Your task to perform on an android device: Set an alarm for 8am Image 0: 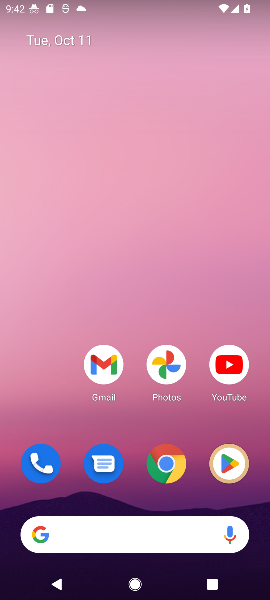
Step 0: drag from (155, 497) to (133, 99)
Your task to perform on an android device: Set an alarm for 8am Image 1: 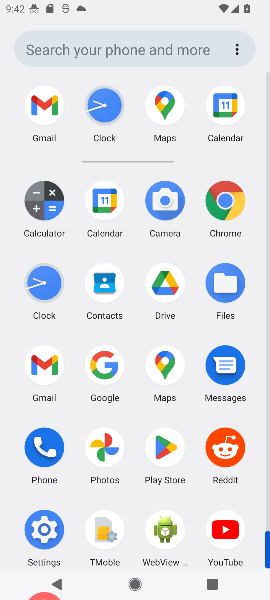
Step 1: click (104, 357)
Your task to perform on an android device: Set an alarm for 8am Image 2: 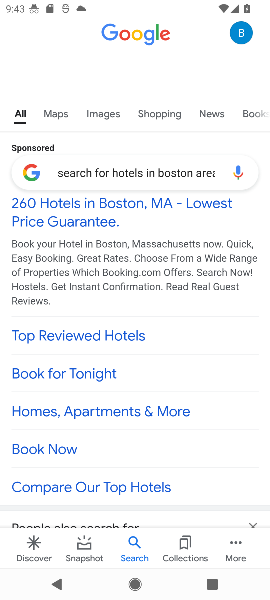
Step 2: click (144, 167)
Your task to perform on an android device: Set an alarm for 8am Image 3: 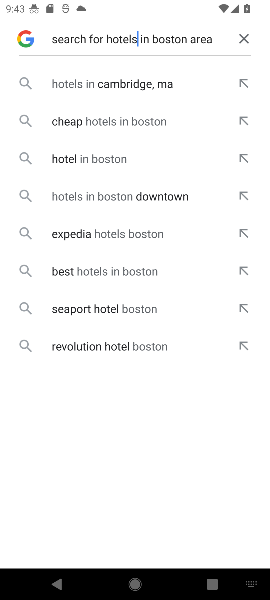
Step 3: click (238, 37)
Your task to perform on an android device: Set an alarm for 8am Image 4: 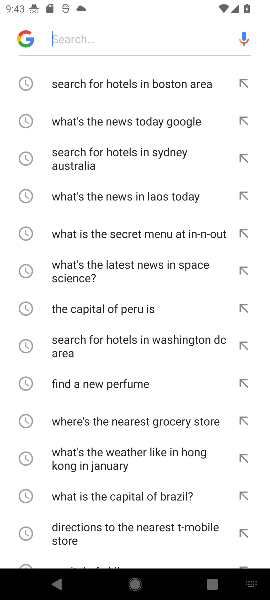
Step 4: press home button
Your task to perform on an android device: Set an alarm for 8am Image 5: 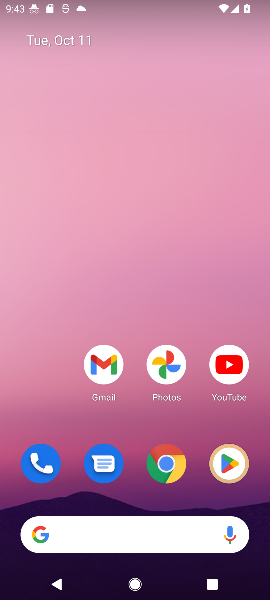
Step 5: drag from (96, 501) to (123, 97)
Your task to perform on an android device: Set an alarm for 8am Image 6: 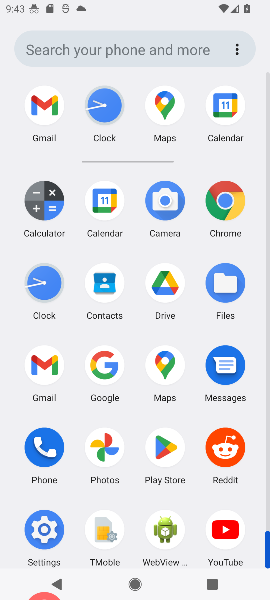
Step 6: drag from (120, 514) to (160, 200)
Your task to perform on an android device: Set an alarm for 8am Image 7: 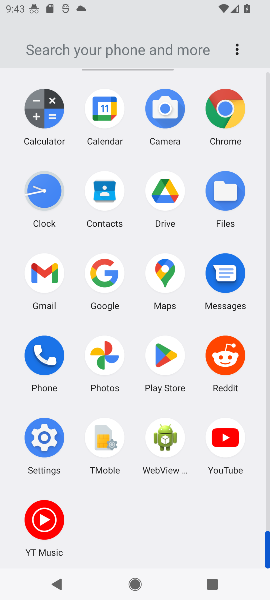
Step 7: click (46, 184)
Your task to perform on an android device: Set an alarm for 8am Image 8: 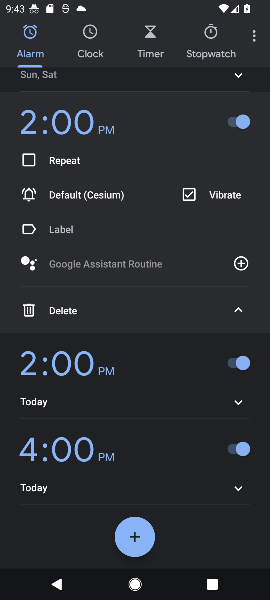
Step 8: click (231, 301)
Your task to perform on an android device: Set an alarm for 8am Image 9: 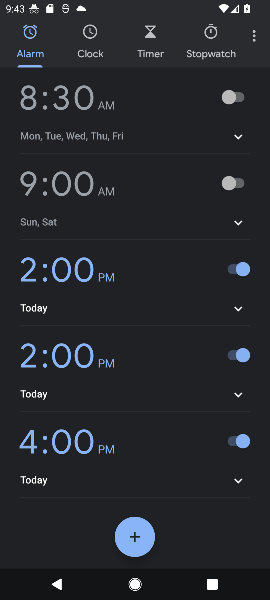
Step 9: click (133, 533)
Your task to perform on an android device: Set an alarm for 8am Image 10: 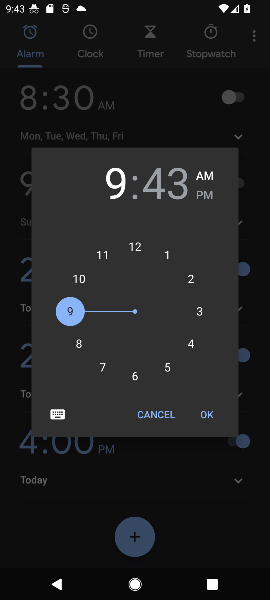
Step 10: click (85, 337)
Your task to perform on an android device: Set an alarm for 8am Image 11: 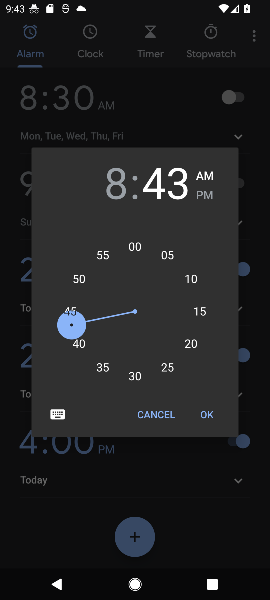
Step 11: click (144, 244)
Your task to perform on an android device: Set an alarm for 8am Image 12: 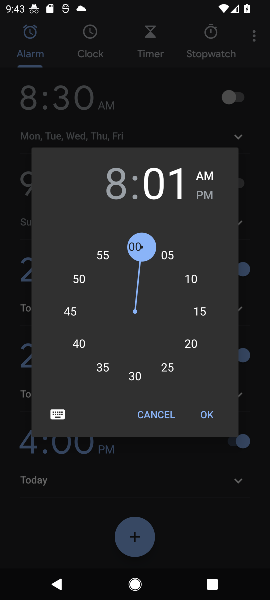
Step 12: click (202, 407)
Your task to perform on an android device: Set an alarm for 8am Image 13: 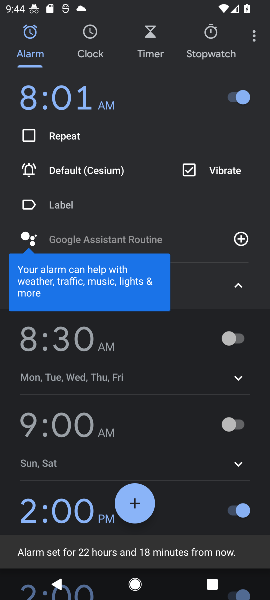
Step 13: click (191, 97)
Your task to perform on an android device: Set an alarm for 8am Image 14: 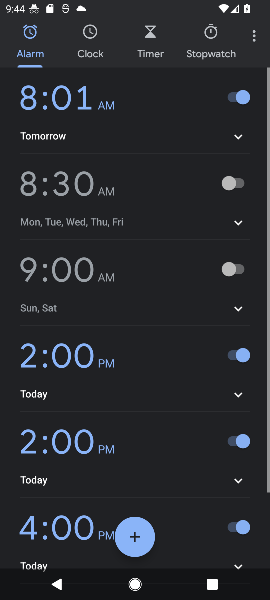
Step 14: click (137, 87)
Your task to perform on an android device: Set an alarm for 8am Image 15: 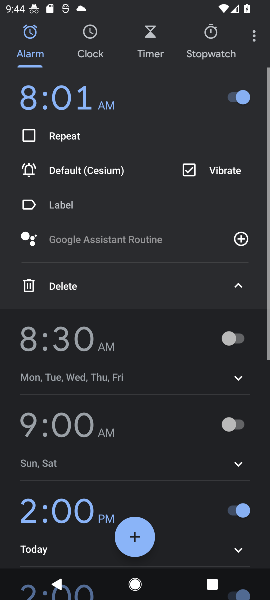
Step 15: click (87, 288)
Your task to perform on an android device: Set an alarm for 8am Image 16: 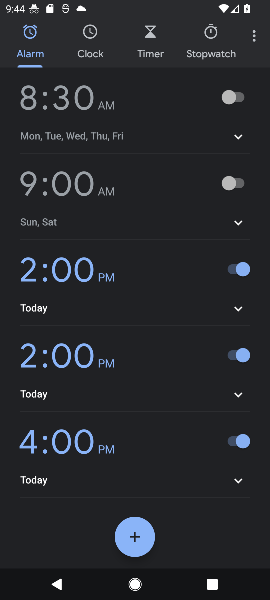
Step 16: click (138, 538)
Your task to perform on an android device: Set an alarm for 8am Image 17: 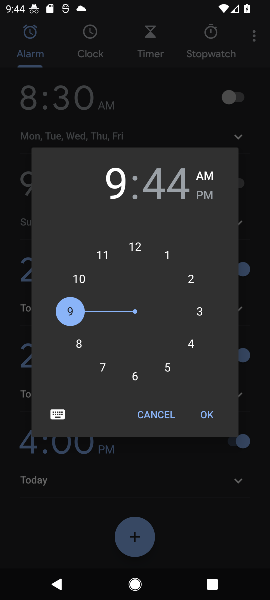
Step 17: click (75, 338)
Your task to perform on an android device: Set an alarm for 8am Image 18: 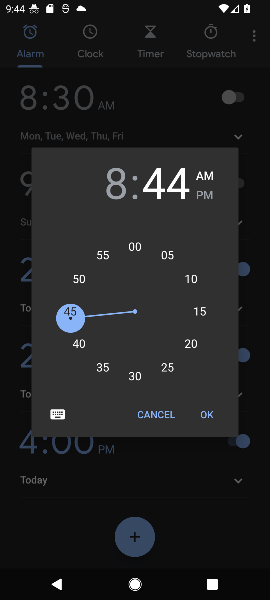
Step 18: click (139, 248)
Your task to perform on an android device: Set an alarm for 8am Image 19: 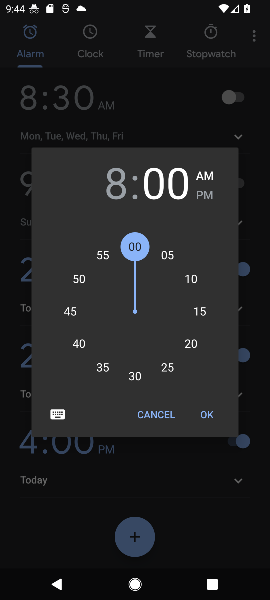
Step 19: click (209, 417)
Your task to perform on an android device: Set an alarm for 8am Image 20: 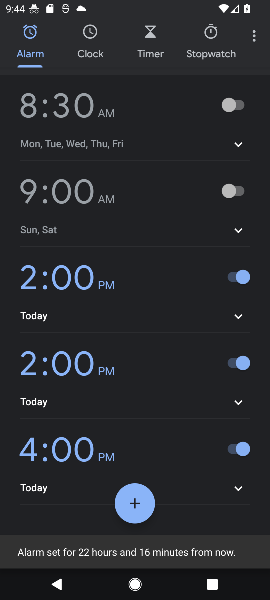
Step 20: task complete